Your task to perform on an android device: snooze an email in the gmail app Image 0: 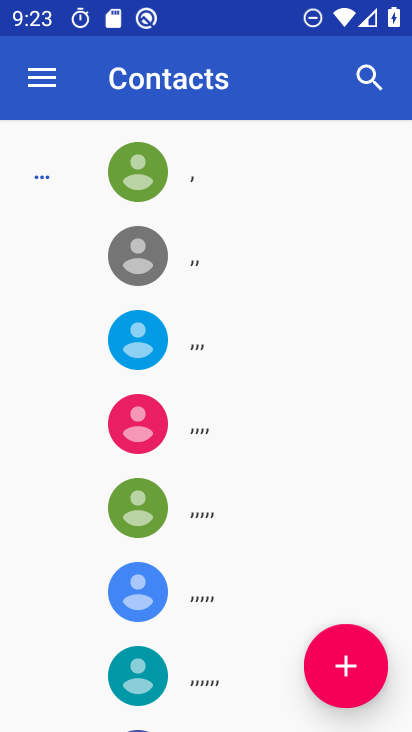
Step 0: press home button
Your task to perform on an android device: snooze an email in the gmail app Image 1: 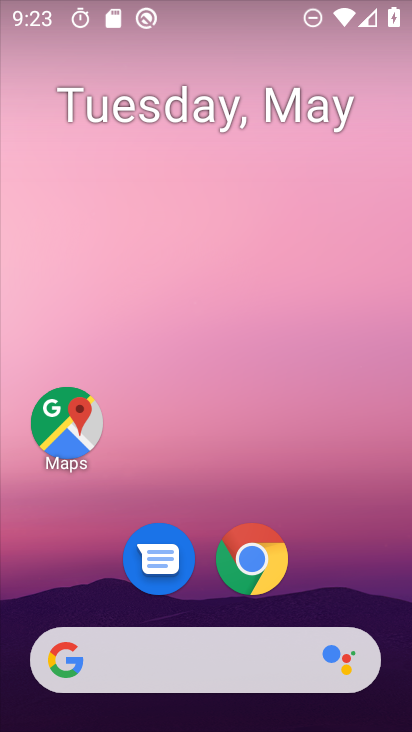
Step 1: drag from (393, 669) to (237, 52)
Your task to perform on an android device: snooze an email in the gmail app Image 2: 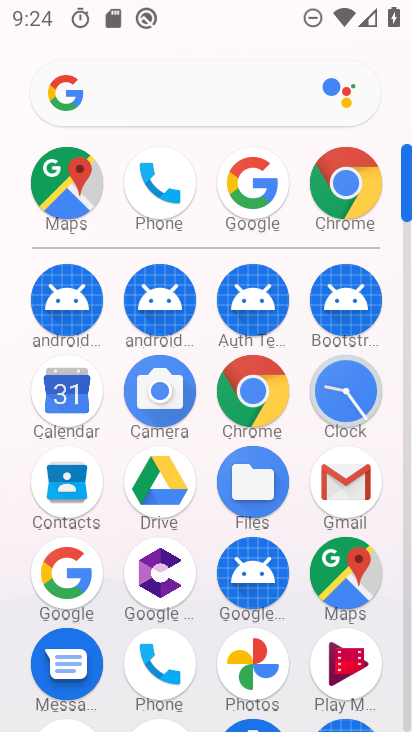
Step 2: click (359, 487)
Your task to perform on an android device: snooze an email in the gmail app Image 3: 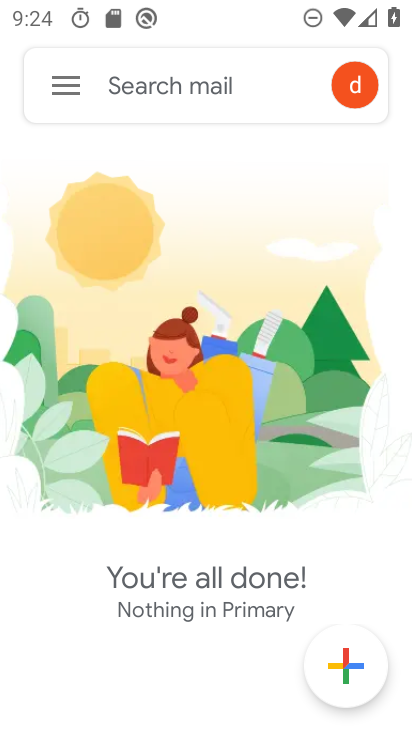
Step 3: click (64, 102)
Your task to perform on an android device: snooze an email in the gmail app Image 4: 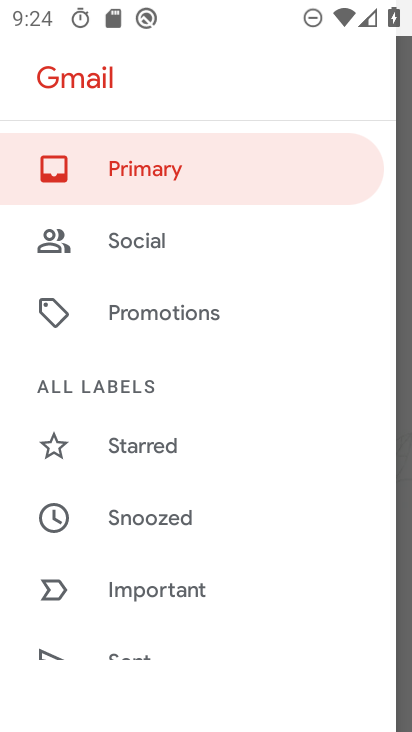
Step 4: click (186, 516)
Your task to perform on an android device: snooze an email in the gmail app Image 5: 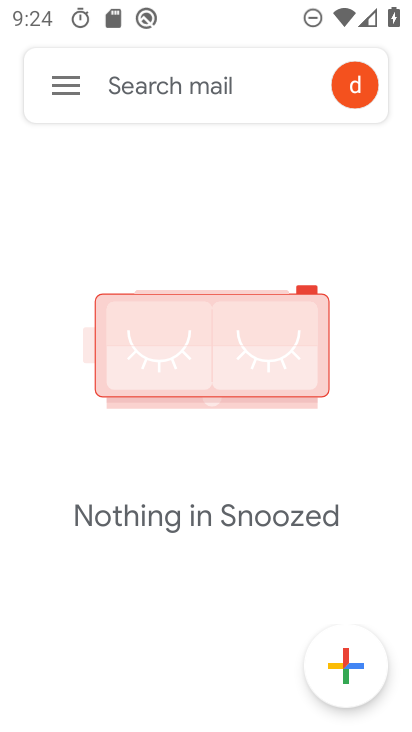
Step 5: task complete